Your task to perform on an android device: change notifications settings Image 0: 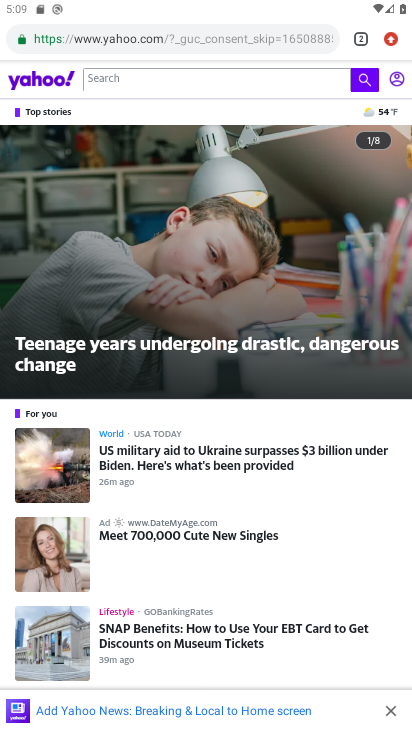
Step 0: press home button
Your task to perform on an android device: change notifications settings Image 1: 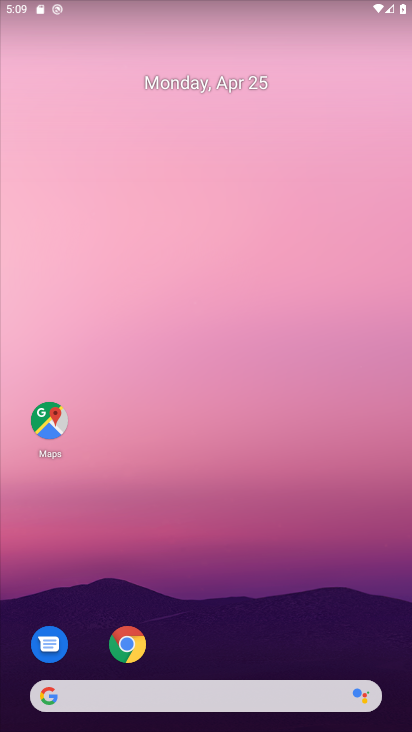
Step 1: drag from (245, 574) to (168, 57)
Your task to perform on an android device: change notifications settings Image 2: 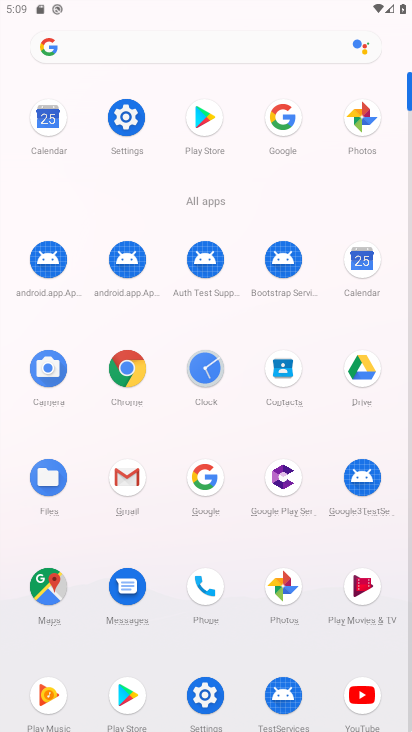
Step 2: click (209, 686)
Your task to perform on an android device: change notifications settings Image 3: 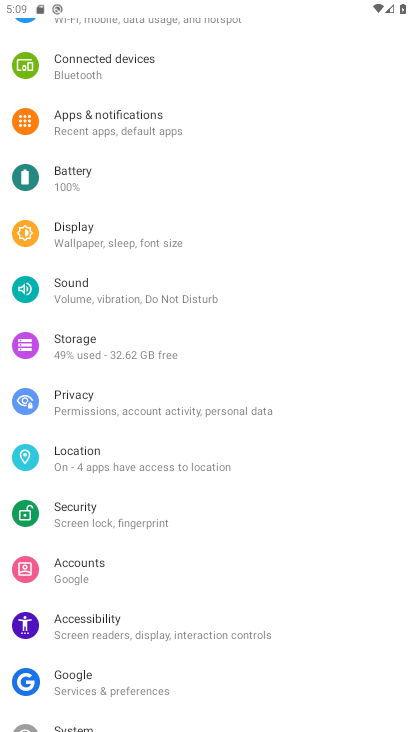
Step 3: click (185, 184)
Your task to perform on an android device: change notifications settings Image 4: 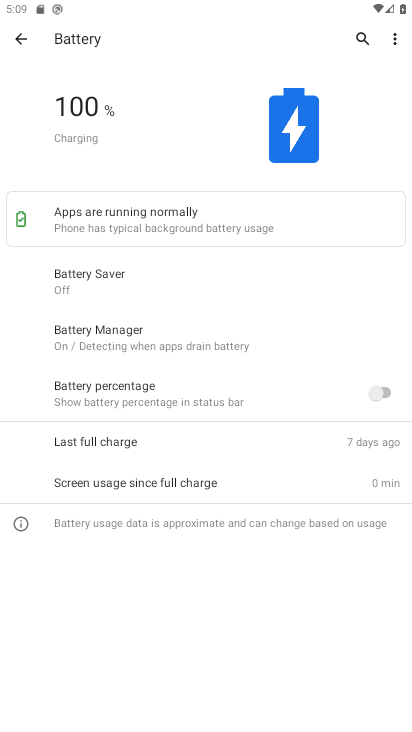
Step 4: click (21, 38)
Your task to perform on an android device: change notifications settings Image 5: 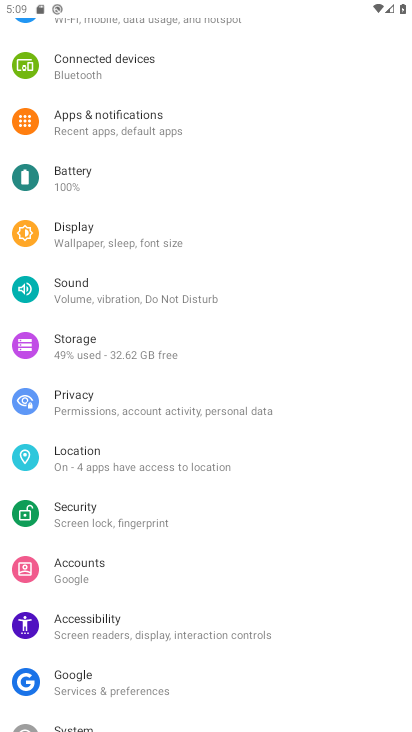
Step 5: click (122, 125)
Your task to perform on an android device: change notifications settings Image 6: 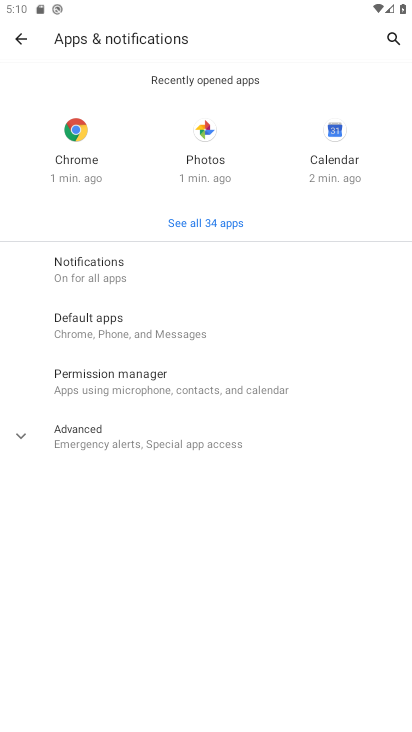
Step 6: click (170, 270)
Your task to perform on an android device: change notifications settings Image 7: 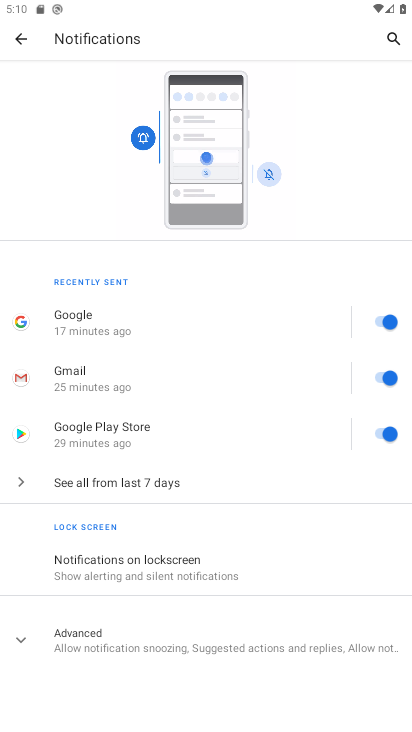
Step 7: click (389, 319)
Your task to perform on an android device: change notifications settings Image 8: 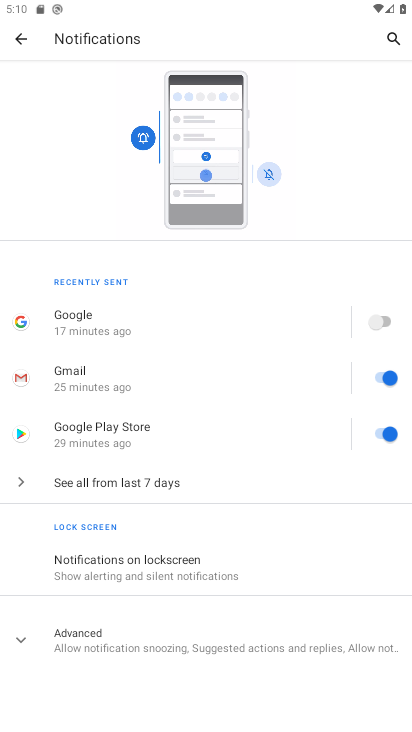
Step 8: click (388, 374)
Your task to perform on an android device: change notifications settings Image 9: 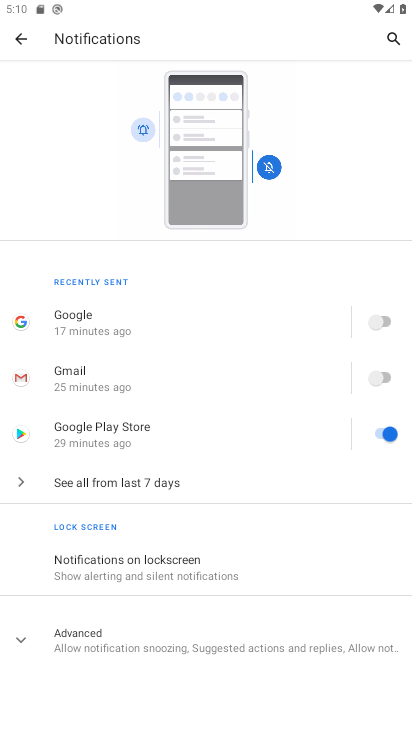
Step 9: click (388, 438)
Your task to perform on an android device: change notifications settings Image 10: 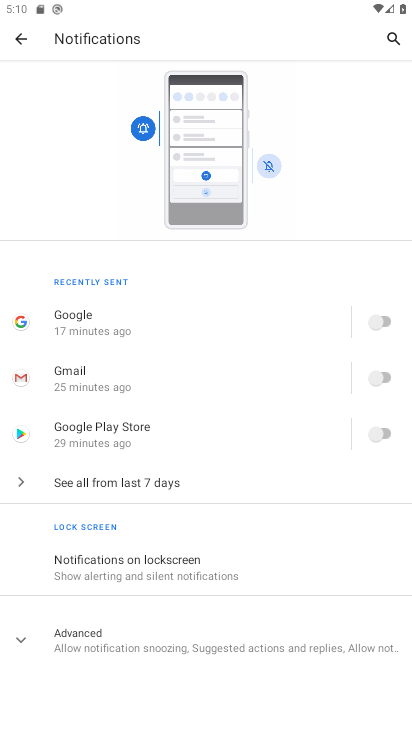
Step 10: task complete